Your task to perform on an android device: set an alarm Image 0: 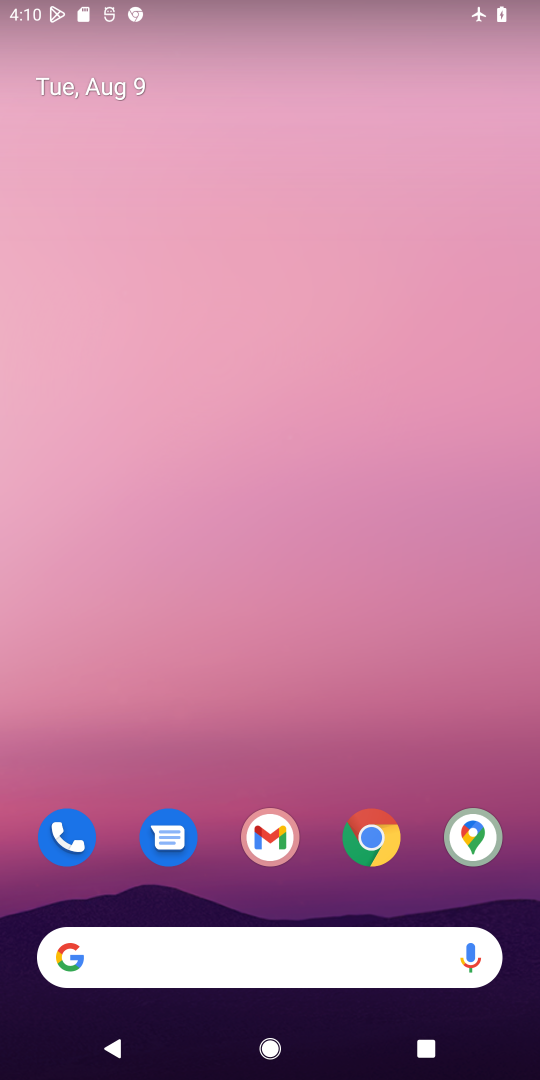
Step 0: drag from (369, 358) to (369, 289)
Your task to perform on an android device: set an alarm Image 1: 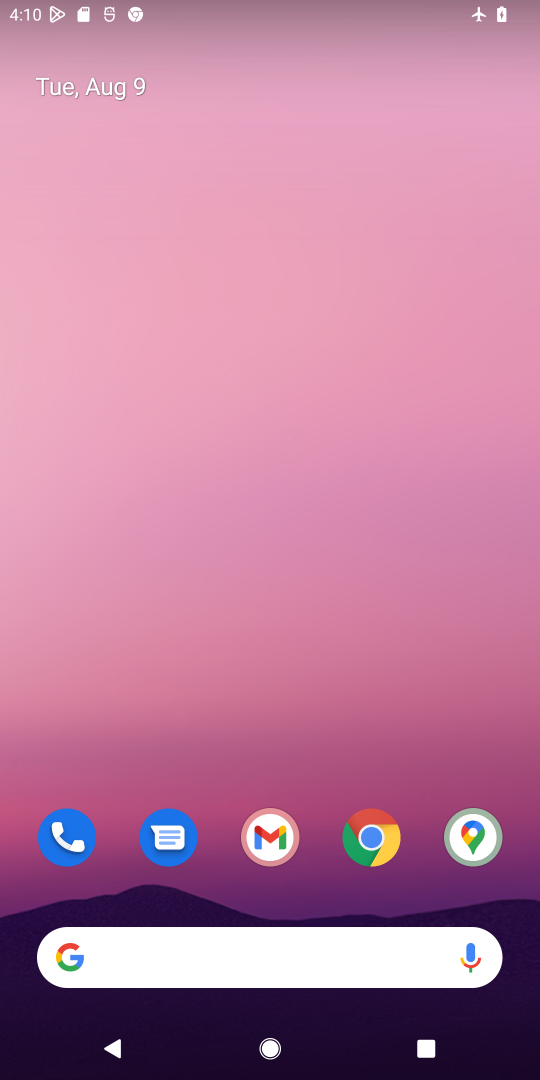
Step 1: drag from (207, 915) to (240, 301)
Your task to perform on an android device: set an alarm Image 2: 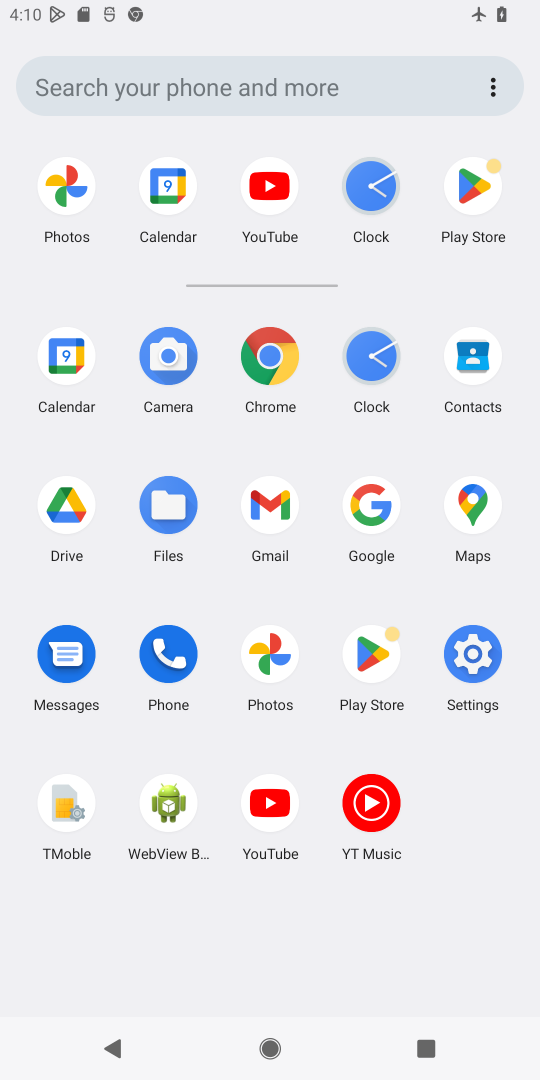
Step 2: click (369, 346)
Your task to perform on an android device: set an alarm Image 3: 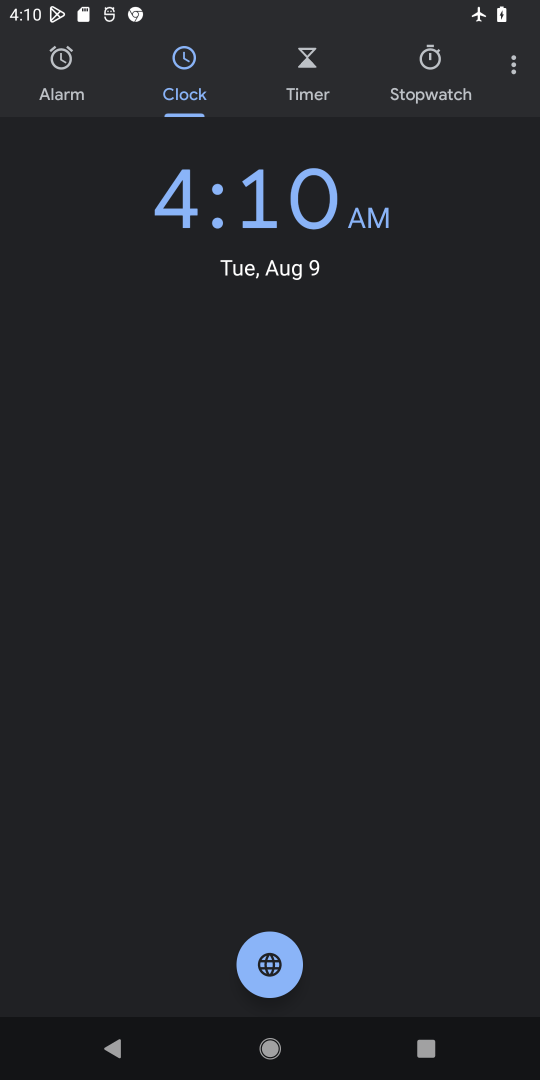
Step 3: click (52, 85)
Your task to perform on an android device: set an alarm Image 4: 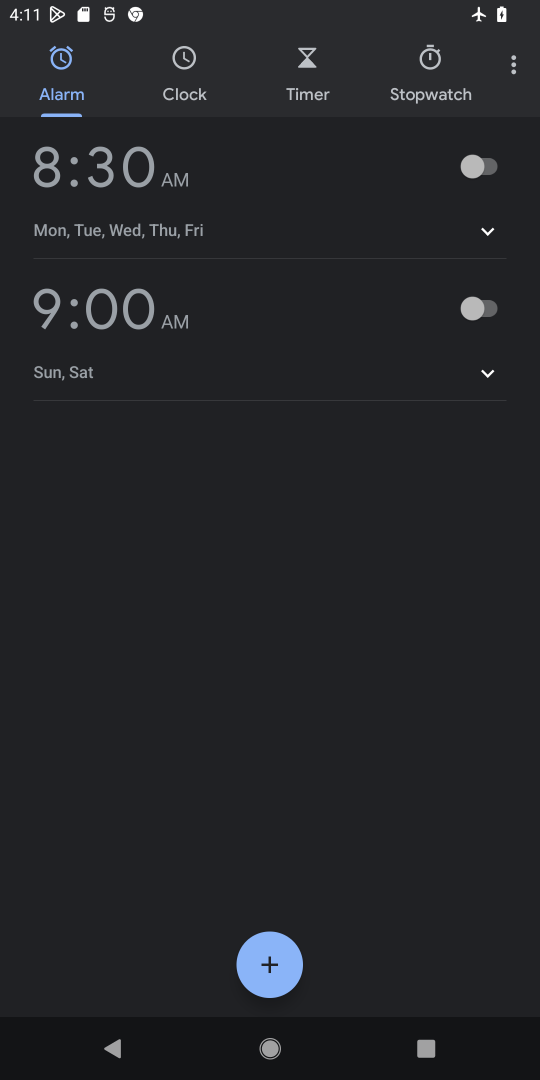
Step 4: task complete